Your task to perform on an android device: find which apps use the phone's location Image 0: 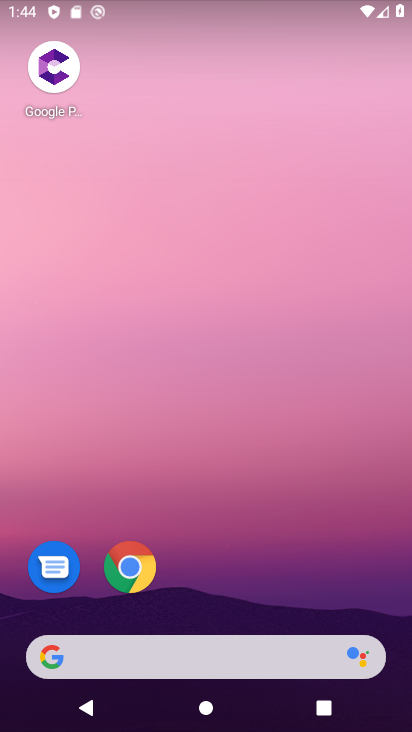
Step 0: drag from (206, 725) to (155, 190)
Your task to perform on an android device: find which apps use the phone's location Image 1: 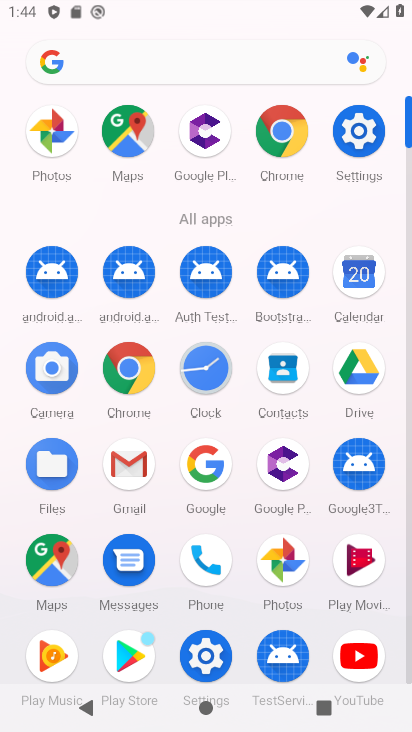
Step 1: click (361, 135)
Your task to perform on an android device: find which apps use the phone's location Image 2: 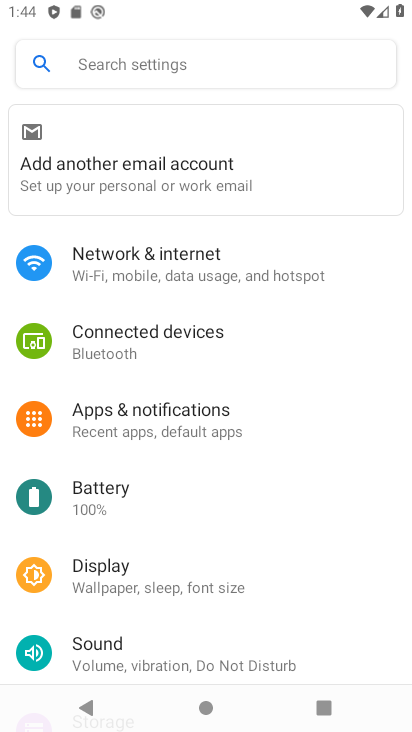
Step 2: drag from (195, 623) to (167, 231)
Your task to perform on an android device: find which apps use the phone's location Image 3: 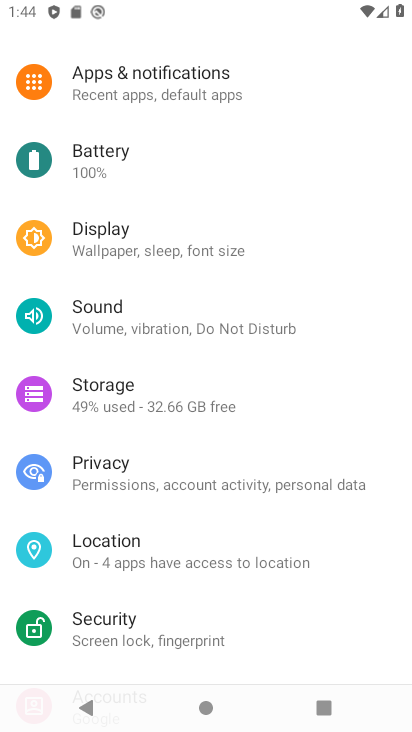
Step 3: click (111, 542)
Your task to perform on an android device: find which apps use the phone's location Image 4: 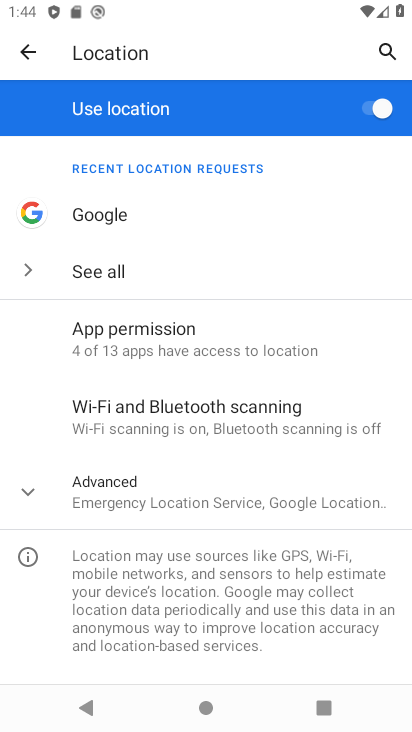
Step 4: click (123, 331)
Your task to perform on an android device: find which apps use the phone's location Image 5: 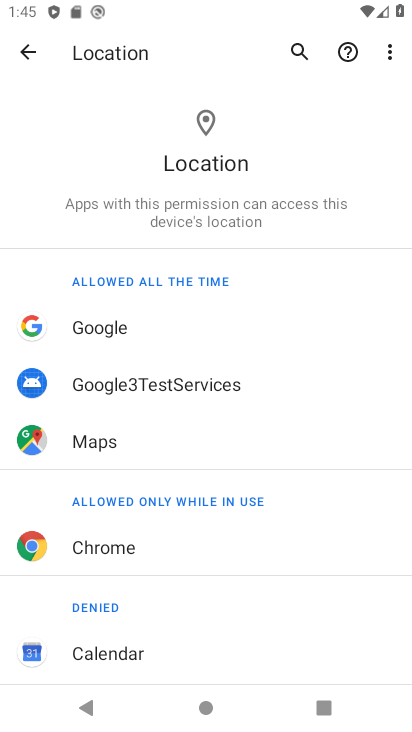
Step 5: task complete